Your task to perform on an android device: empty trash in the gmail app Image 0: 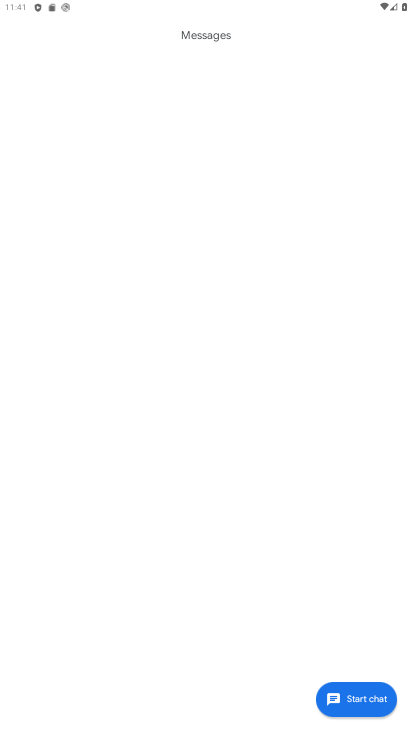
Step 0: drag from (197, 723) to (224, 192)
Your task to perform on an android device: empty trash in the gmail app Image 1: 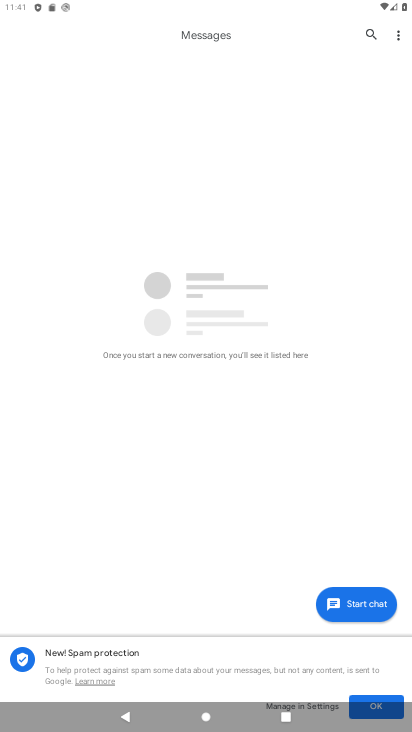
Step 1: press home button
Your task to perform on an android device: empty trash in the gmail app Image 2: 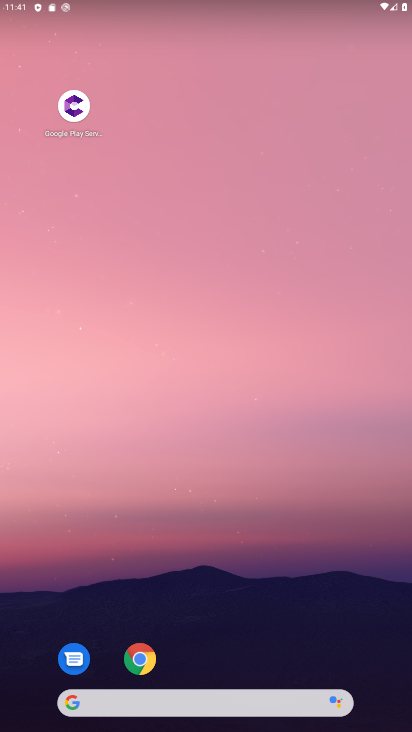
Step 2: drag from (188, 702) to (235, 189)
Your task to perform on an android device: empty trash in the gmail app Image 3: 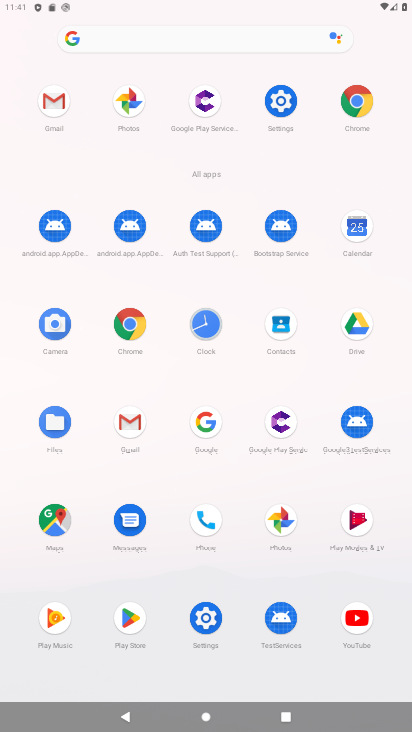
Step 3: click (129, 425)
Your task to perform on an android device: empty trash in the gmail app Image 4: 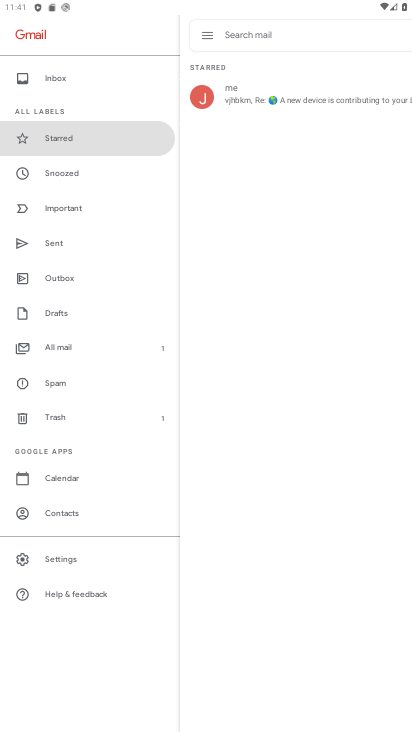
Step 4: click (59, 418)
Your task to perform on an android device: empty trash in the gmail app Image 5: 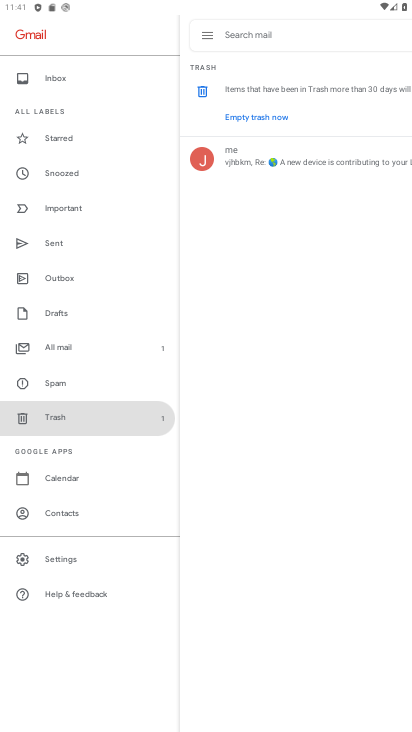
Step 5: click (265, 114)
Your task to perform on an android device: empty trash in the gmail app Image 6: 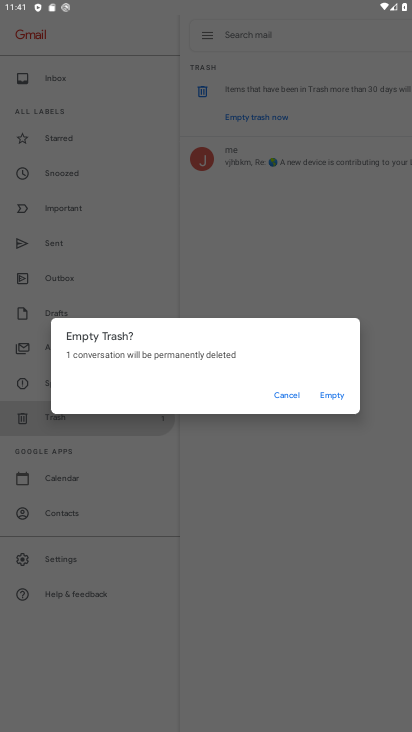
Step 6: click (331, 391)
Your task to perform on an android device: empty trash in the gmail app Image 7: 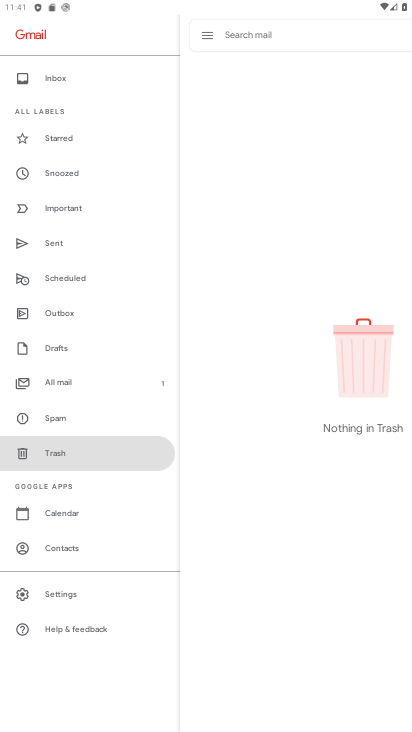
Step 7: task complete